Your task to perform on an android device: Go to Amazon Image 0: 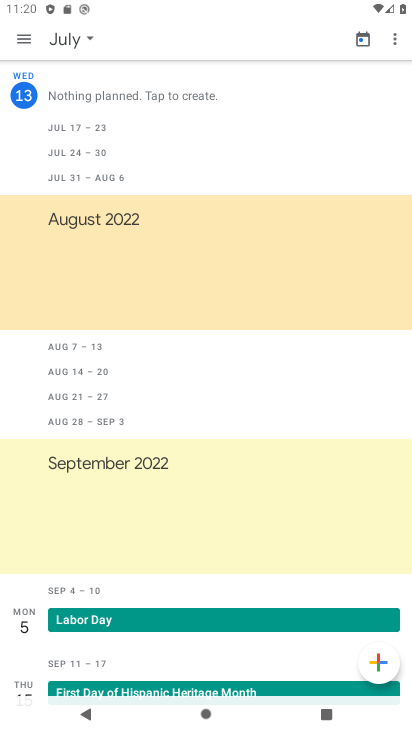
Step 0: drag from (214, 631) to (221, 182)
Your task to perform on an android device: Go to Amazon Image 1: 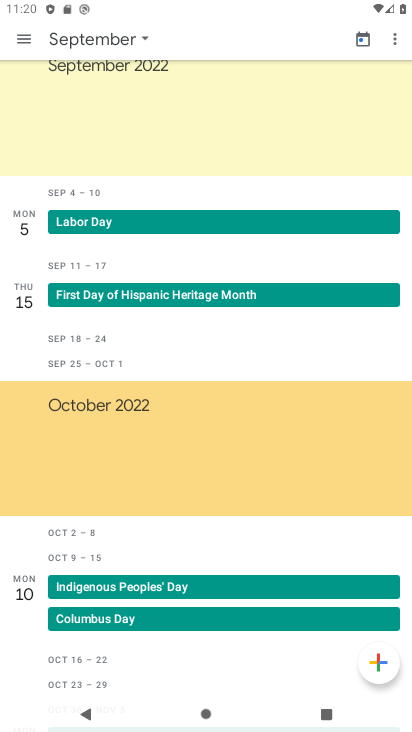
Step 1: drag from (279, 568) to (281, 399)
Your task to perform on an android device: Go to Amazon Image 2: 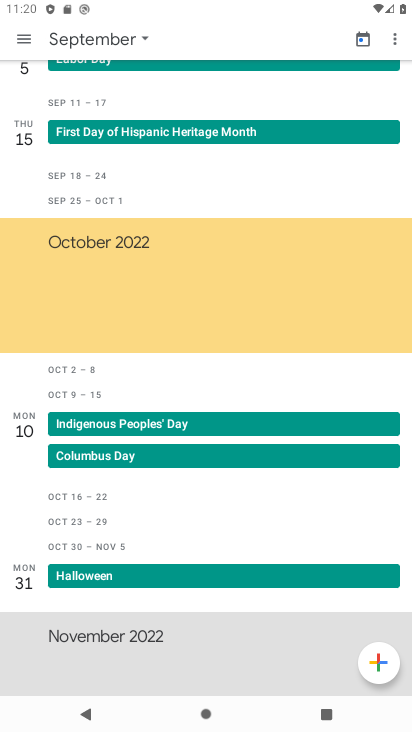
Step 2: drag from (211, 581) to (209, 351)
Your task to perform on an android device: Go to Amazon Image 3: 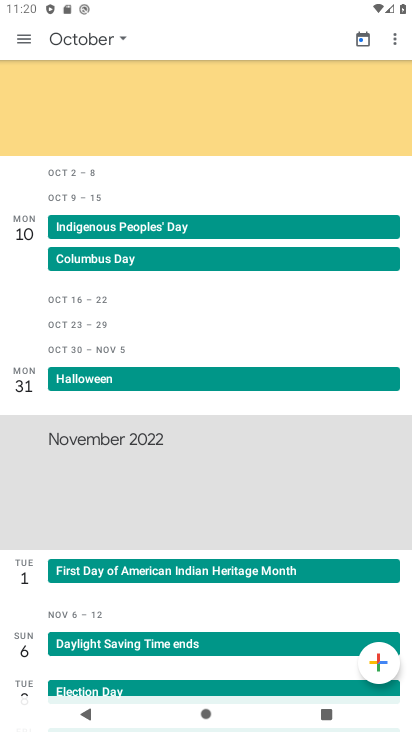
Step 3: press home button
Your task to perform on an android device: Go to Amazon Image 4: 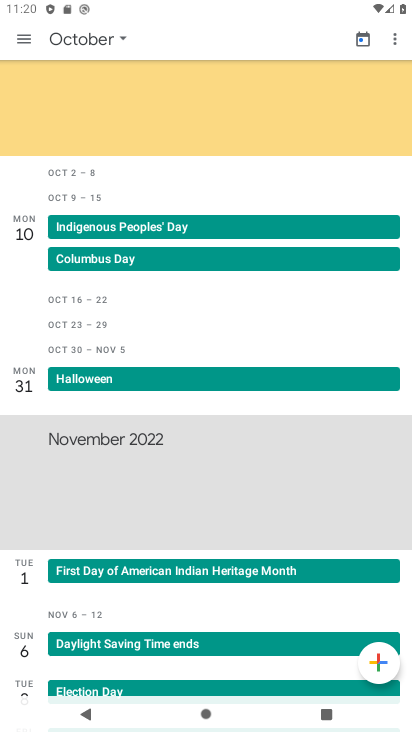
Step 4: press home button
Your task to perform on an android device: Go to Amazon Image 5: 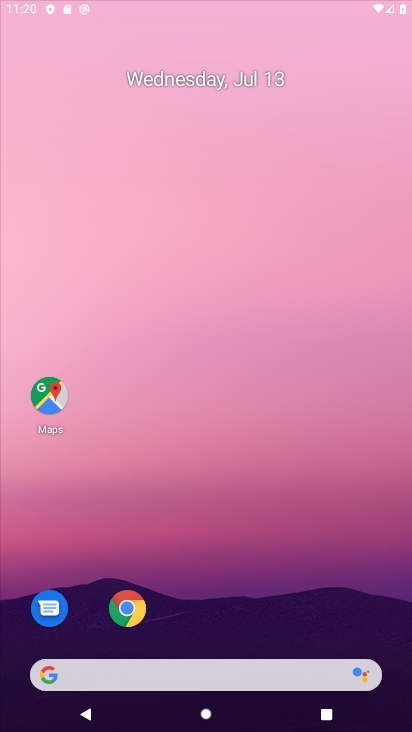
Step 5: drag from (274, 337) to (278, 279)
Your task to perform on an android device: Go to Amazon Image 6: 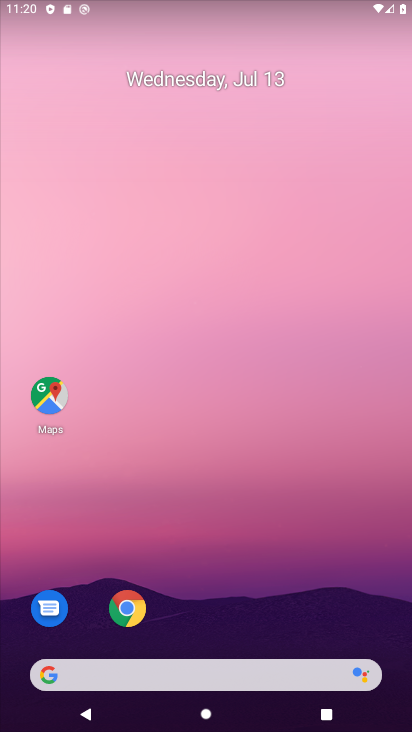
Step 6: drag from (182, 640) to (220, 15)
Your task to perform on an android device: Go to Amazon Image 7: 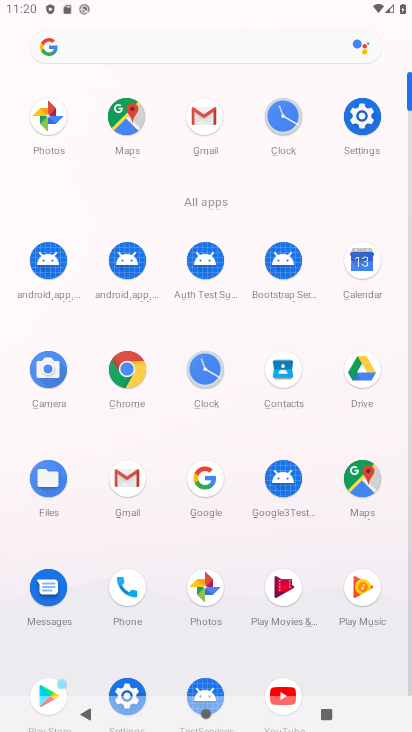
Step 7: click (125, 369)
Your task to perform on an android device: Go to Amazon Image 8: 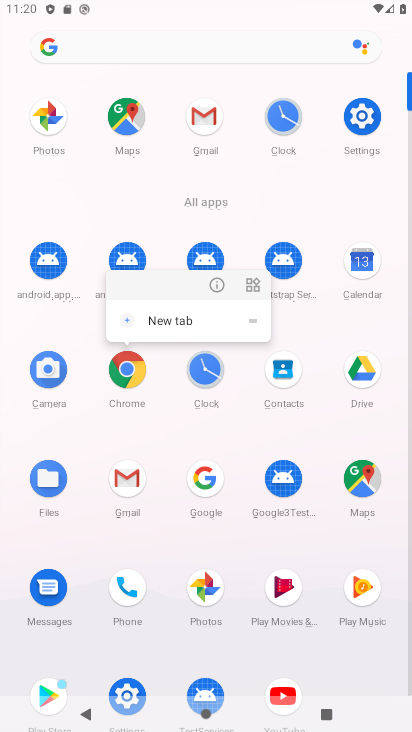
Step 8: click (214, 285)
Your task to perform on an android device: Go to Amazon Image 9: 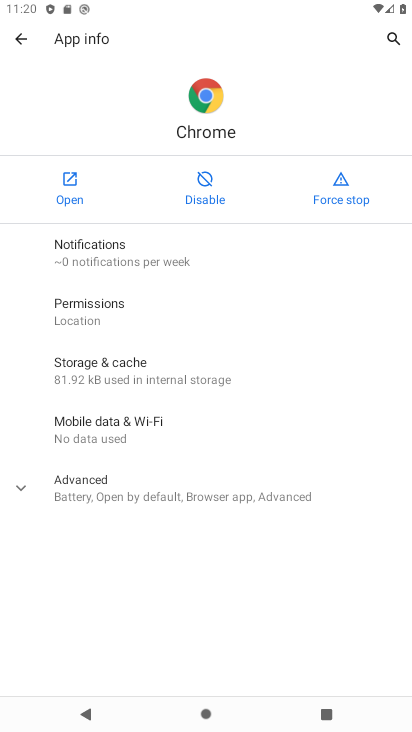
Step 9: click (70, 180)
Your task to perform on an android device: Go to Amazon Image 10: 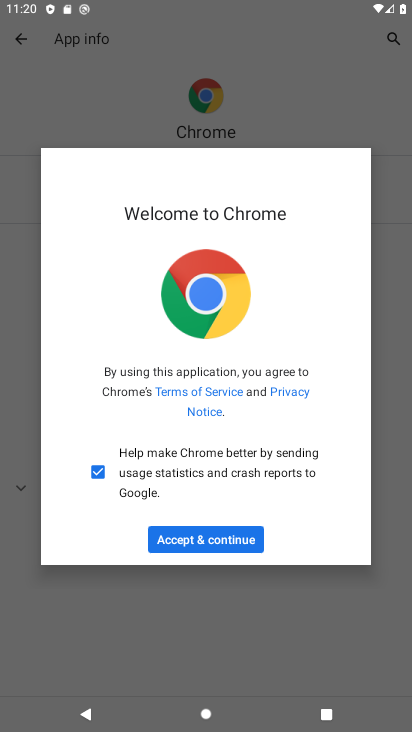
Step 10: click (206, 538)
Your task to perform on an android device: Go to Amazon Image 11: 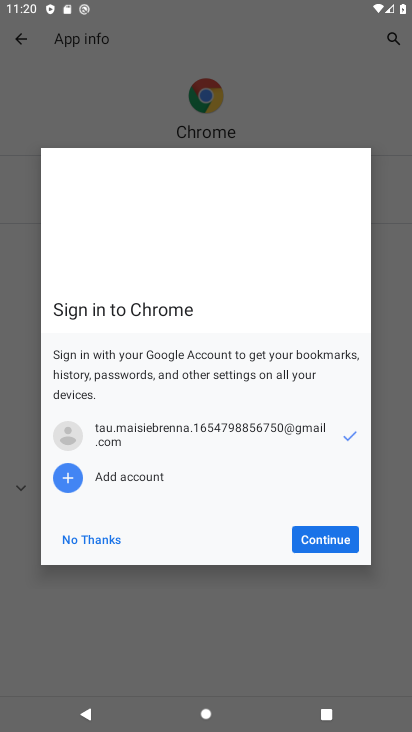
Step 11: click (306, 544)
Your task to perform on an android device: Go to Amazon Image 12: 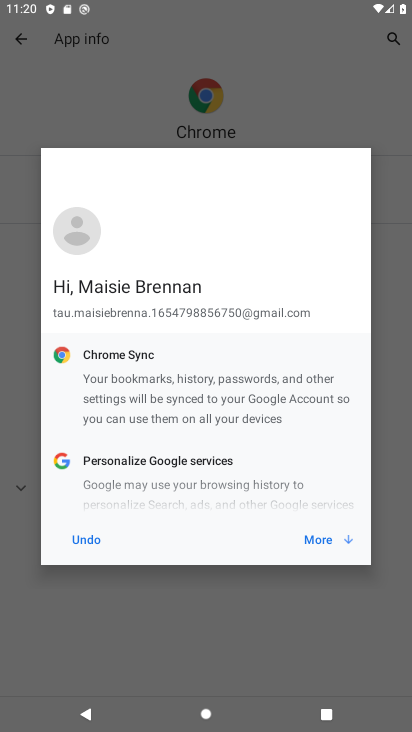
Step 12: click (311, 536)
Your task to perform on an android device: Go to Amazon Image 13: 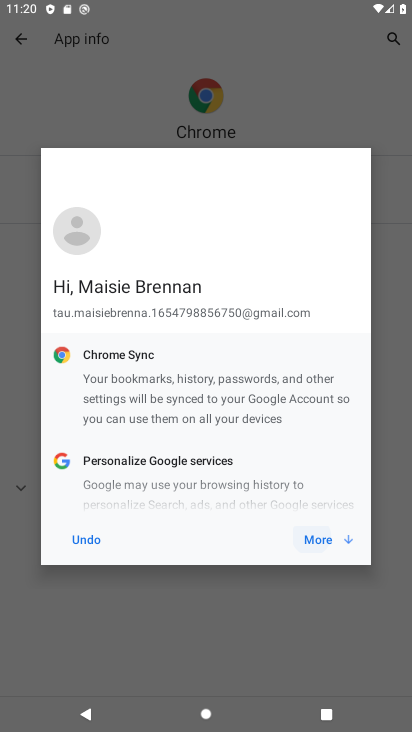
Step 13: click (311, 536)
Your task to perform on an android device: Go to Amazon Image 14: 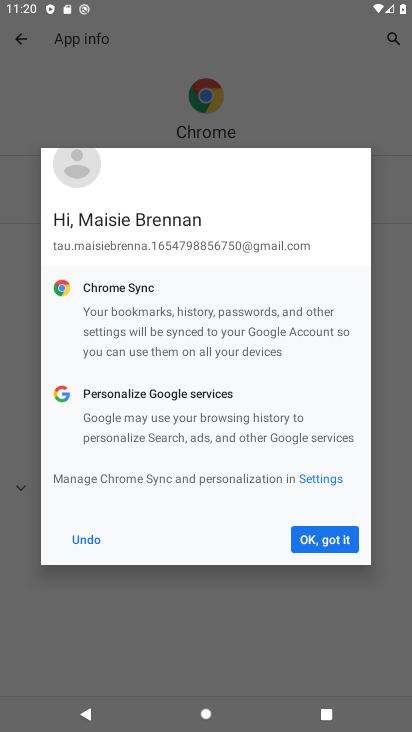
Step 14: click (314, 536)
Your task to perform on an android device: Go to Amazon Image 15: 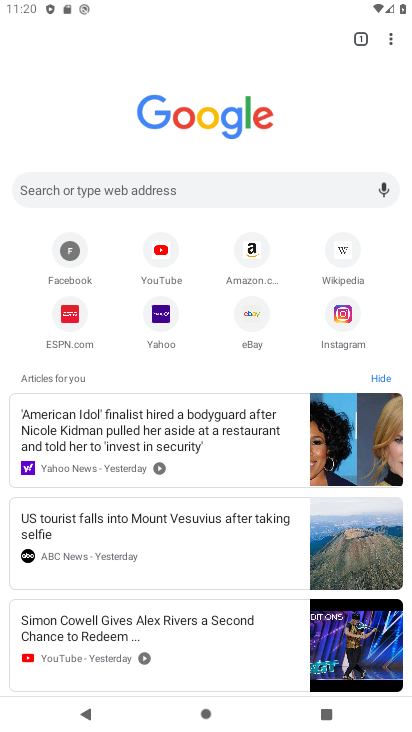
Step 15: click (243, 249)
Your task to perform on an android device: Go to Amazon Image 16: 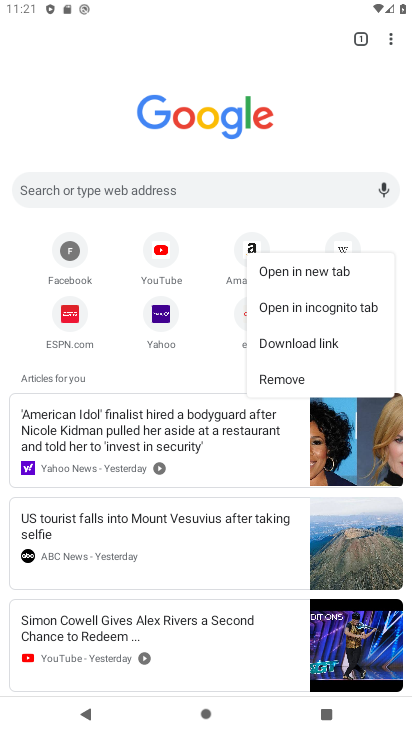
Step 16: click (269, 228)
Your task to perform on an android device: Go to Amazon Image 17: 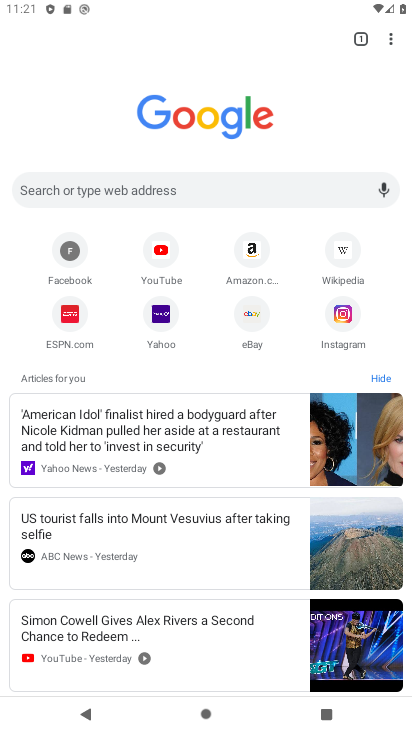
Step 17: drag from (170, 468) to (163, 138)
Your task to perform on an android device: Go to Amazon Image 18: 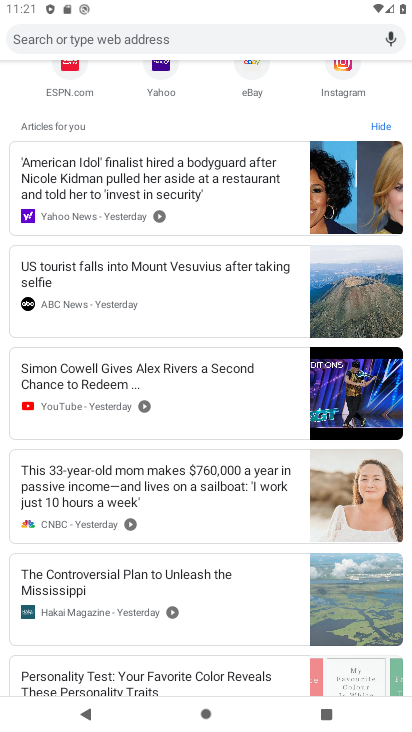
Step 18: drag from (161, 78) to (224, 550)
Your task to perform on an android device: Go to Amazon Image 19: 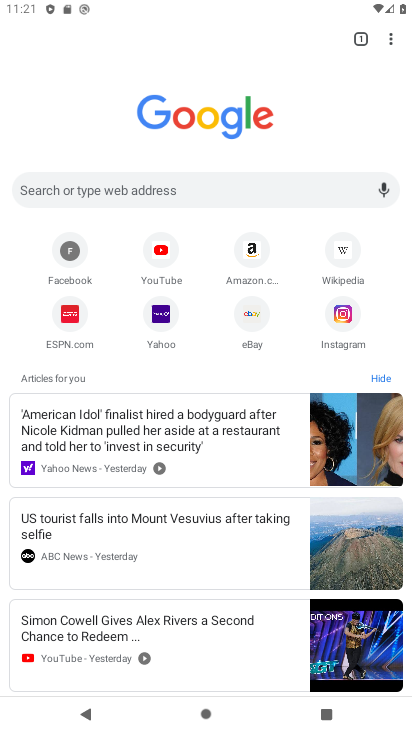
Step 19: drag from (191, 211) to (238, 578)
Your task to perform on an android device: Go to Amazon Image 20: 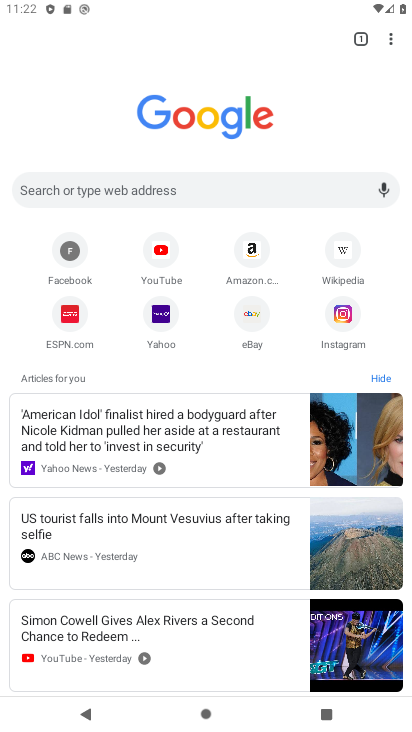
Step 20: drag from (177, 446) to (189, 177)
Your task to perform on an android device: Go to Amazon Image 21: 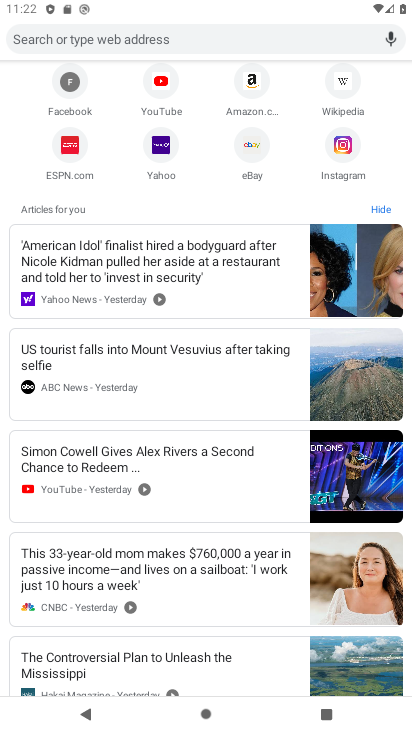
Step 21: drag from (216, 149) to (221, 512)
Your task to perform on an android device: Go to Amazon Image 22: 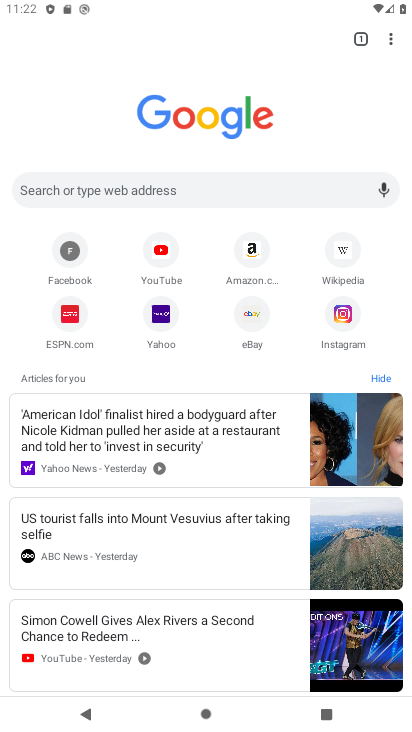
Step 22: drag from (187, 204) to (253, 387)
Your task to perform on an android device: Go to Amazon Image 23: 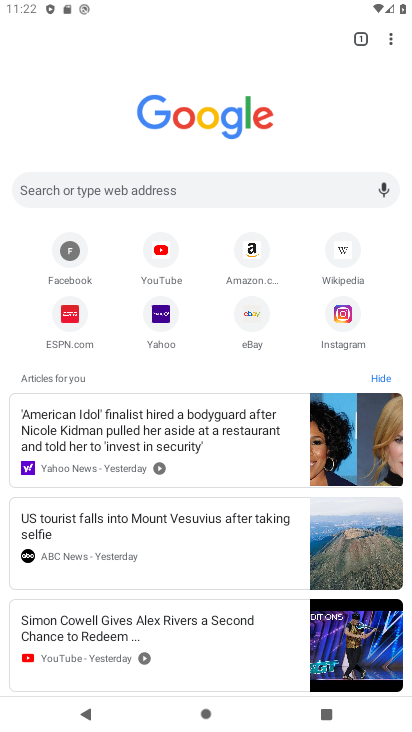
Step 23: click (227, 256)
Your task to perform on an android device: Go to Amazon Image 24: 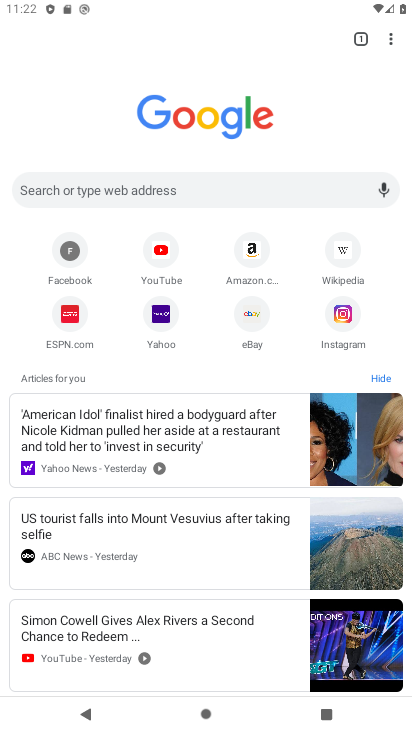
Step 24: click (228, 256)
Your task to perform on an android device: Go to Amazon Image 25: 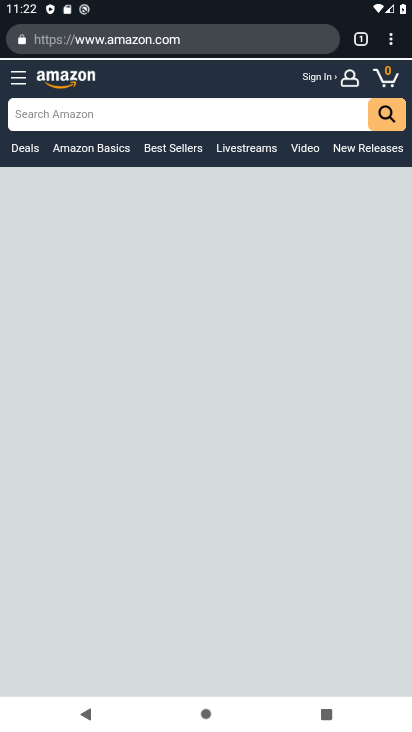
Step 25: task complete